Your task to perform on an android device: change the clock display to show seconds Image 0: 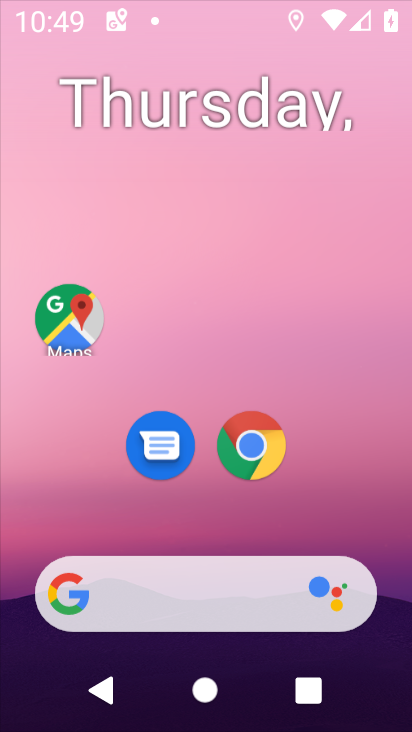
Step 0: click (257, 41)
Your task to perform on an android device: change the clock display to show seconds Image 1: 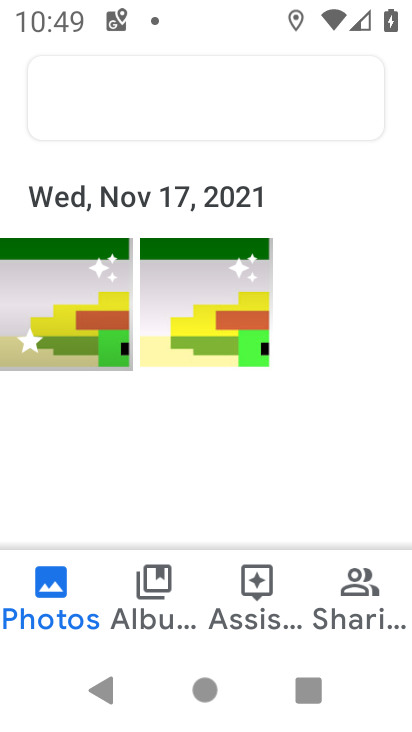
Step 1: press home button
Your task to perform on an android device: change the clock display to show seconds Image 2: 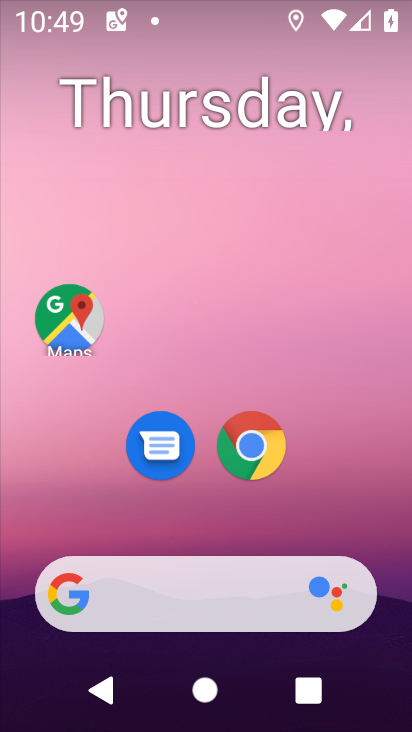
Step 2: drag from (376, 506) to (266, 66)
Your task to perform on an android device: change the clock display to show seconds Image 3: 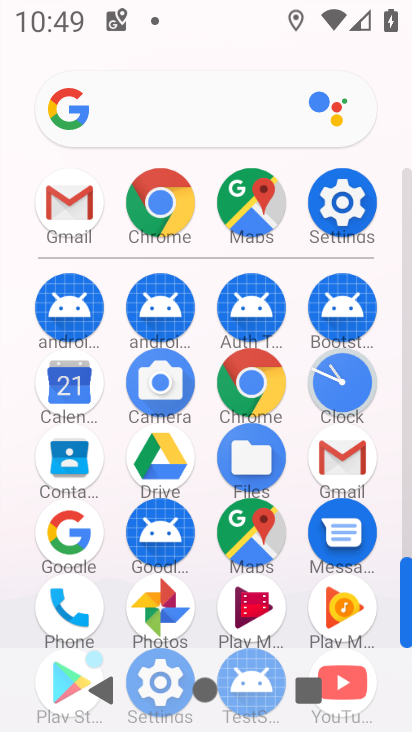
Step 3: click (358, 394)
Your task to perform on an android device: change the clock display to show seconds Image 4: 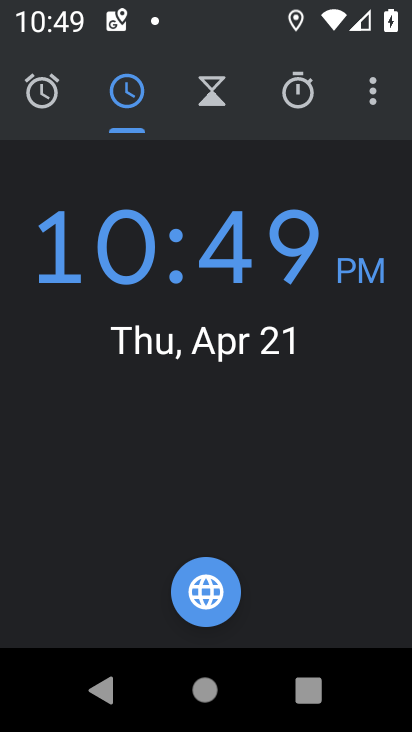
Step 4: click (379, 82)
Your task to perform on an android device: change the clock display to show seconds Image 5: 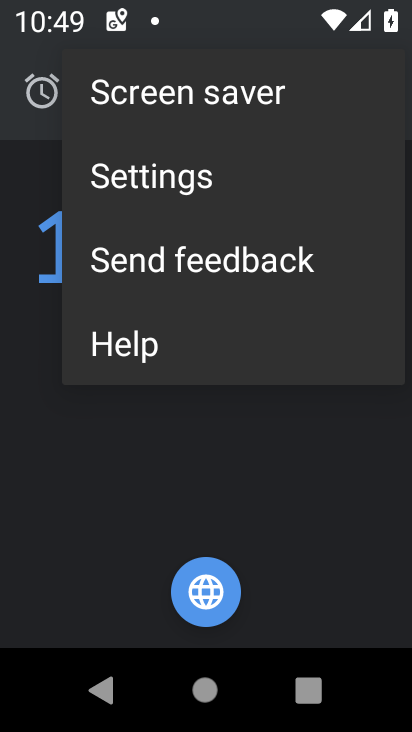
Step 5: click (218, 159)
Your task to perform on an android device: change the clock display to show seconds Image 6: 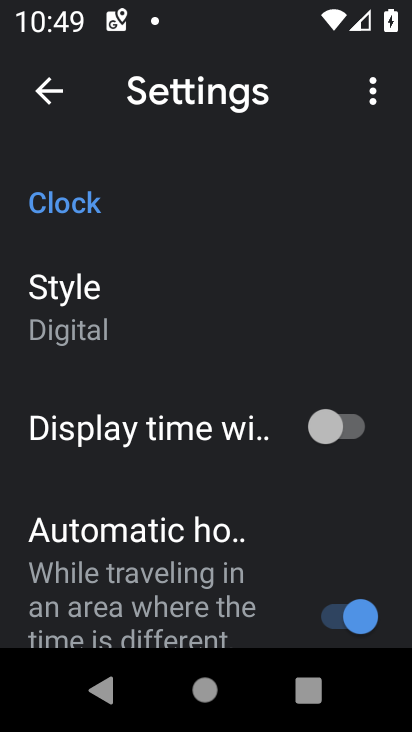
Step 6: click (315, 421)
Your task to perform on an android device: change the clock display to show seconds Image 7: 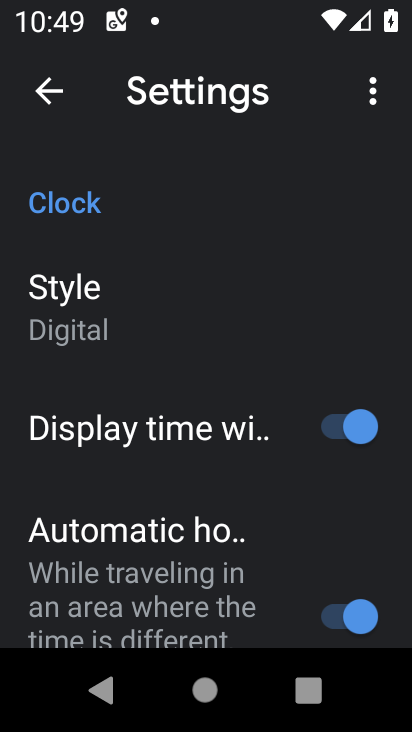
Step 7: task complete